Your task to perform on an android device: turn off data saver in the chrome app Image 0: 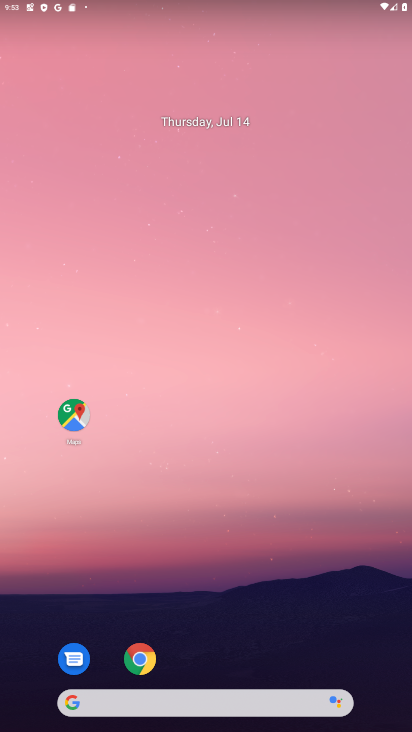
Step 0: drag from (288, 524) to (239, 88)
Your task to perform on an android device: turn off data saver in the chrome app Image 1: 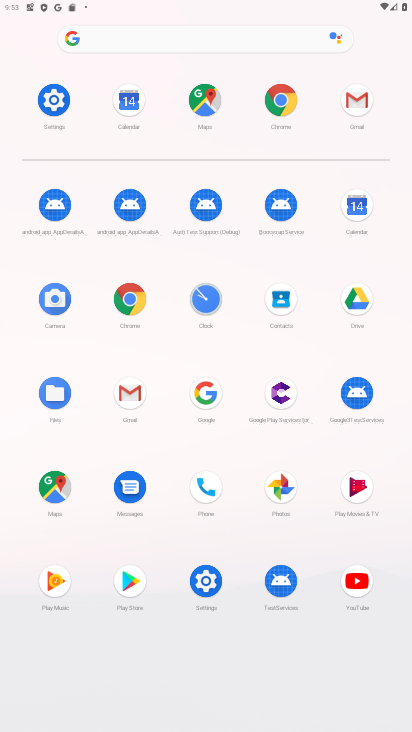
Step 1: click (131, 301)
Your task to perform on an android device: turn off data saver in the chrome app Image 2: 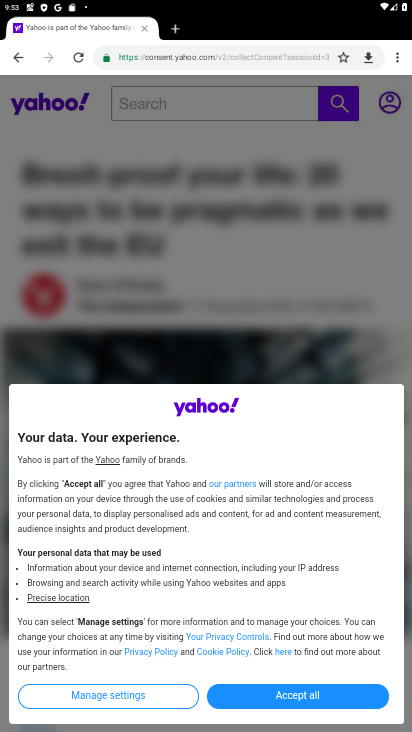
Step 2: drag from (398, 57) to (282, 376)
Your task to perform on an android device: turn off data saver in the chrome app Image 3: 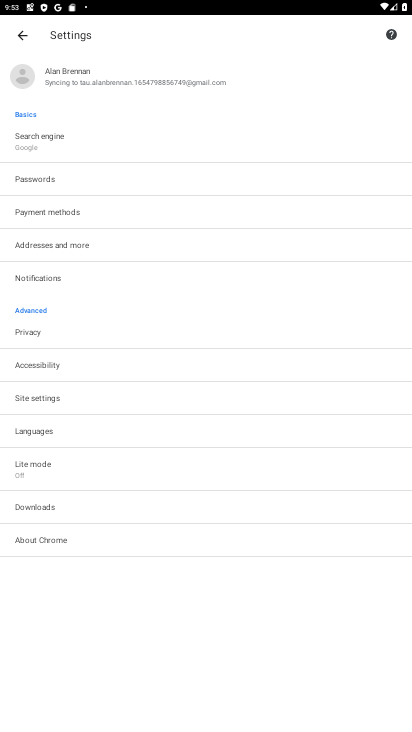
Step 3: click (58, 470)
Your task to perform on an android device: turn off data saver in the chrome app Image 4: 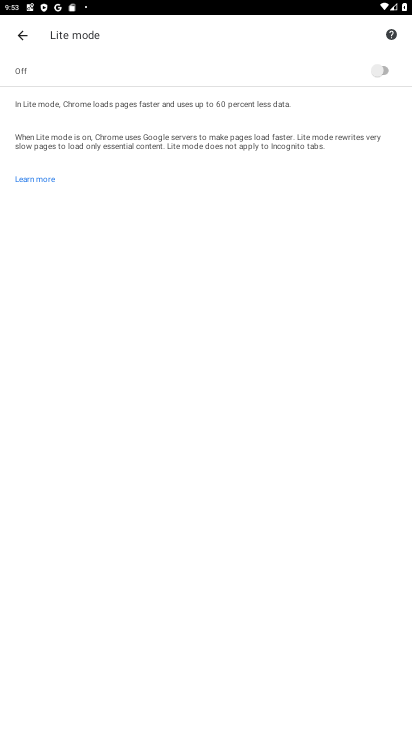
Step 4: task complete